Your task to perform on an android device: Open Google Maps Image 0: 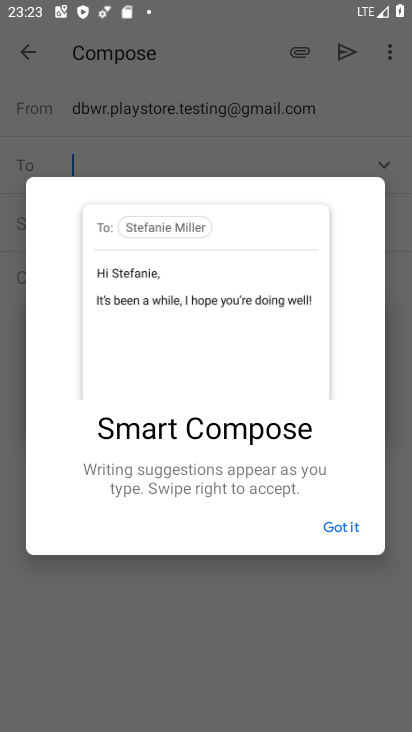
Step 0: press home button
Your task to perform on an android device: Open Google Maps Image 1: 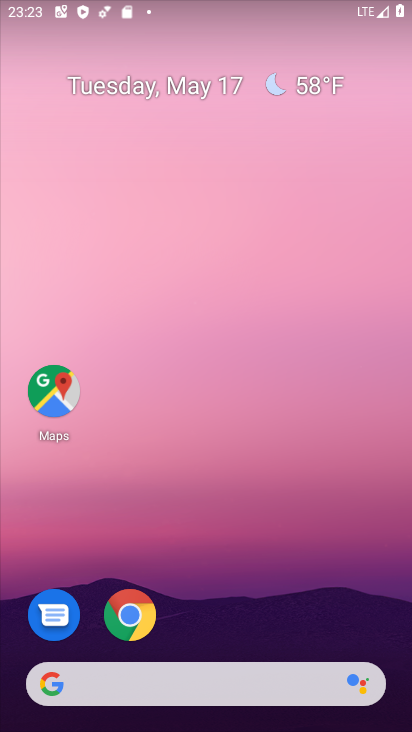
Step 1: click (59, 392)
Your task to perform on an android device: Open Google Maps Image 2: 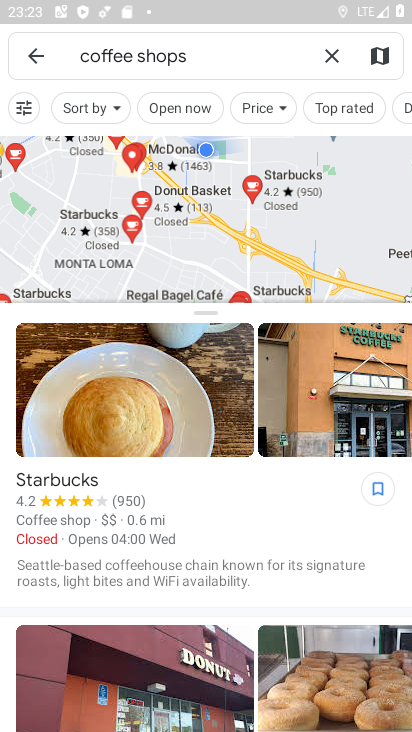
Step 2: task complete